Your task to perform on an android device: Open calendar and show me the fourth week of next month Image 0: 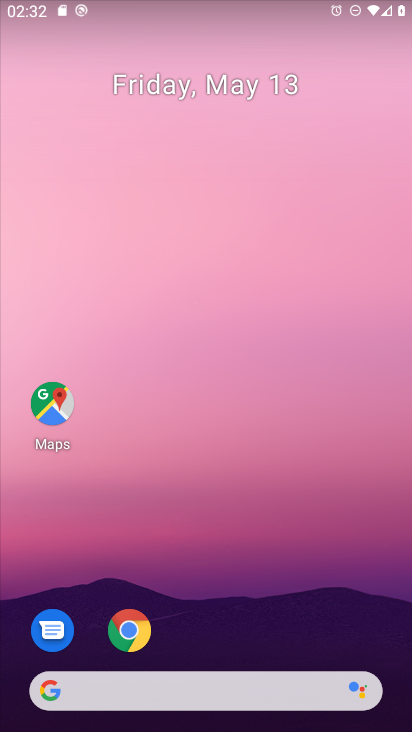
Step 0: drag from (222, 699) to (222, 299)
Your task to perform on an android device: Open calendar and show me the fourth week of next month Image 1: 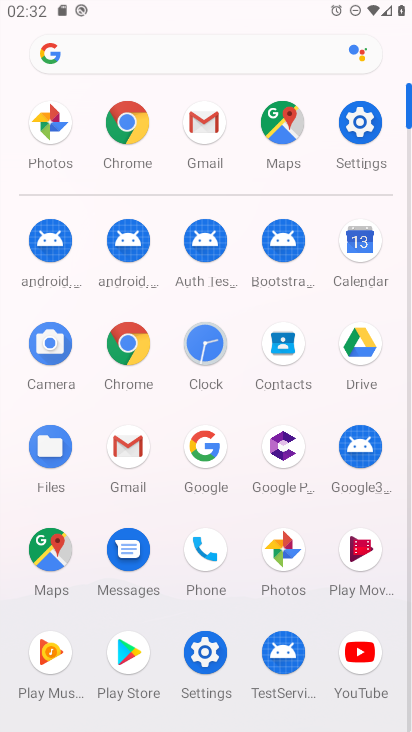
Step 1: click (359, 241)
Your task to perform on an android device: Open calendar and show me the fourth week of next month Image 2: 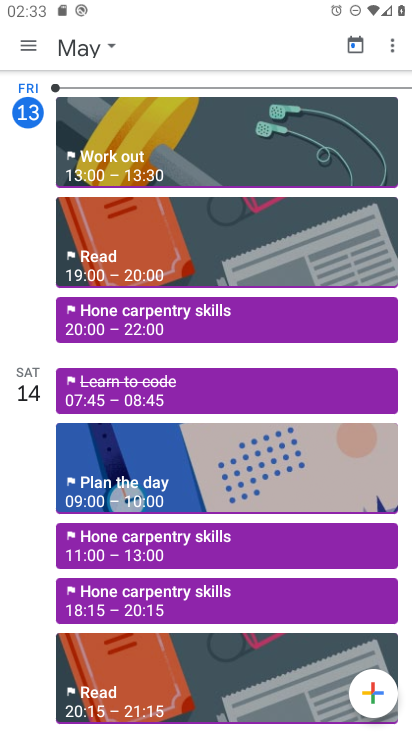
Step 2: click (28, 62)
Your task to perform on an android device: Open calendar and show me the fourth week of next month Image 3: 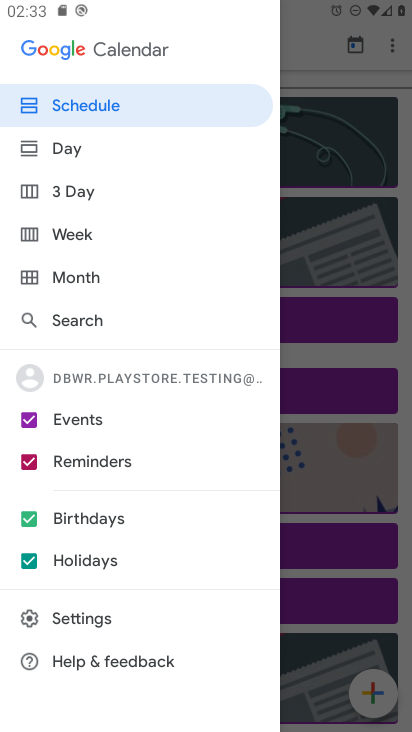
Step 3: click (69, 281)
Your task to perform on an android device: Open calendar and show me the fourth week of next month Image 4: 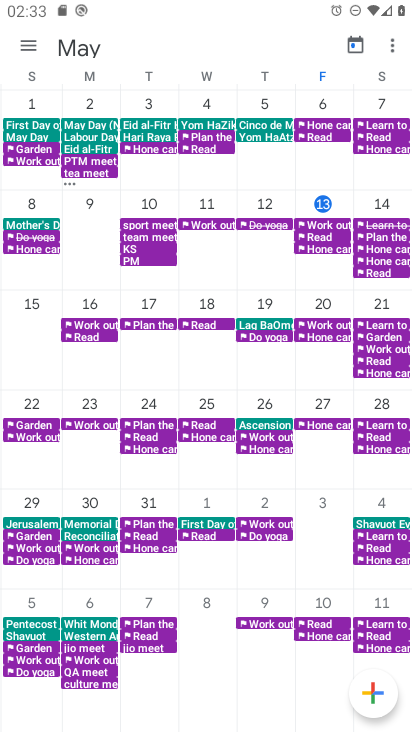
Step 4: drag from (348, 365) to (2, 521)
Your task to perform on an android device: Open calendar and show me the fourth week of next month Image 5: 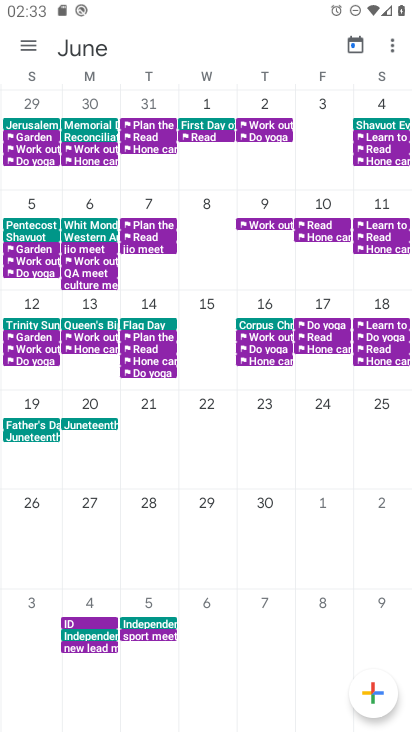
Step 5: click (93, 442)
Your task to perform on an android device: Open calendar and show me the fourth week of next month Image 6: 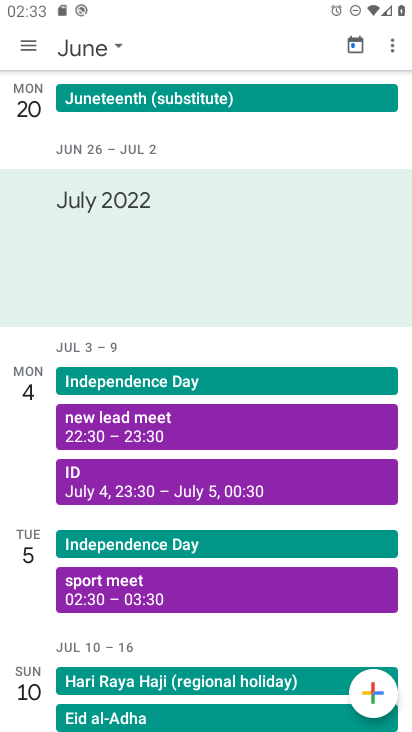
Step 6: task complete